Your task to perform on an android device: change notifications settings Image 0: 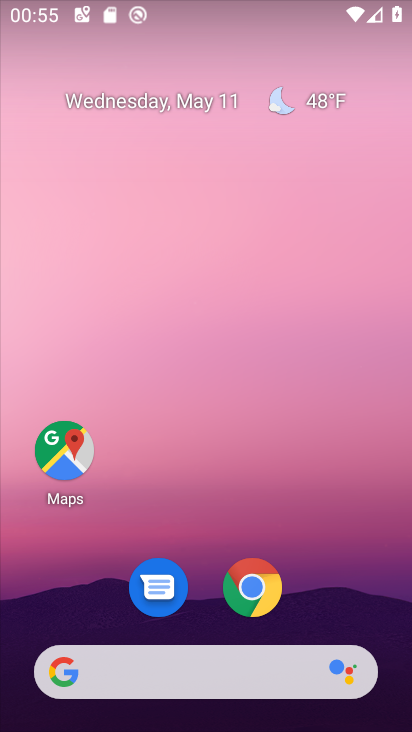
Step 0: drag from (357, 598) to (249, 193)
Your task to perform on an android device: change notifications settings Image 1: 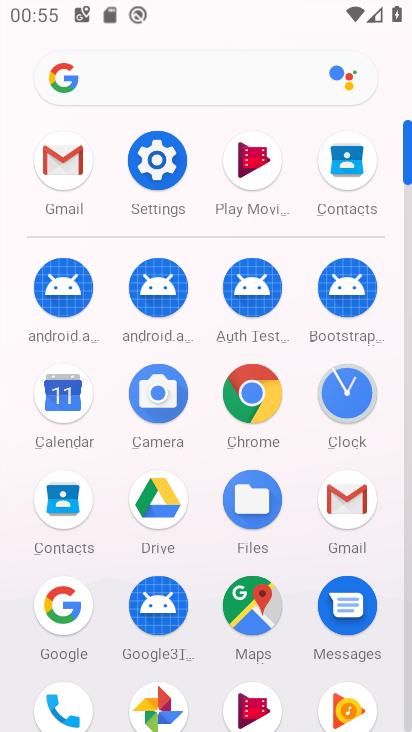
Step 1: click (159, 170)
Your task to perform on an android device: change notifications settings Image 2: 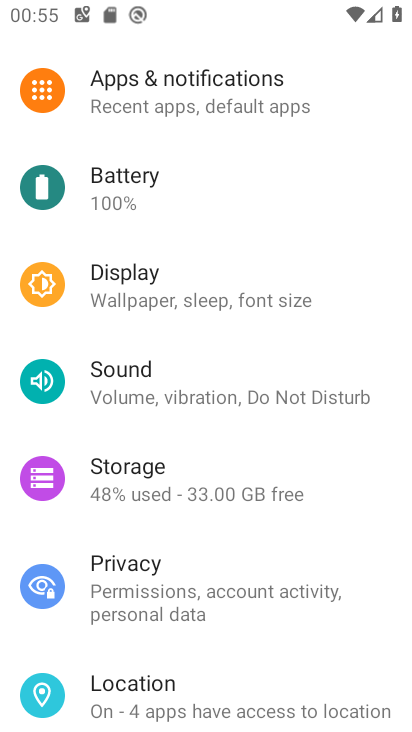
Step 2: click (107, 102)
Your task to perform on an android device: change notifications settings Image 3: 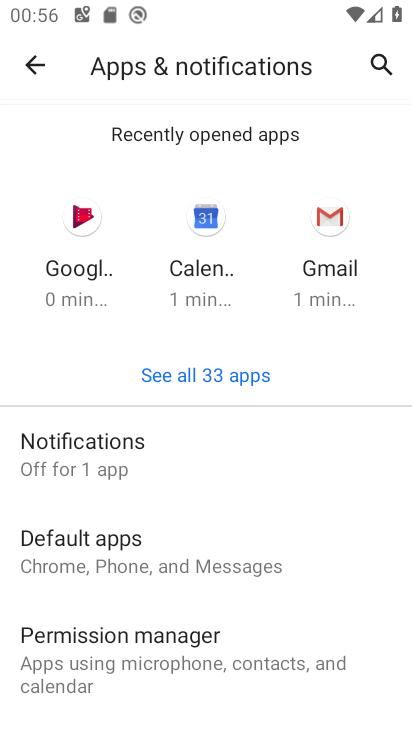
Step 3: click (79, 440)
Your task to perform on an android device: change notifications settings Image 4: 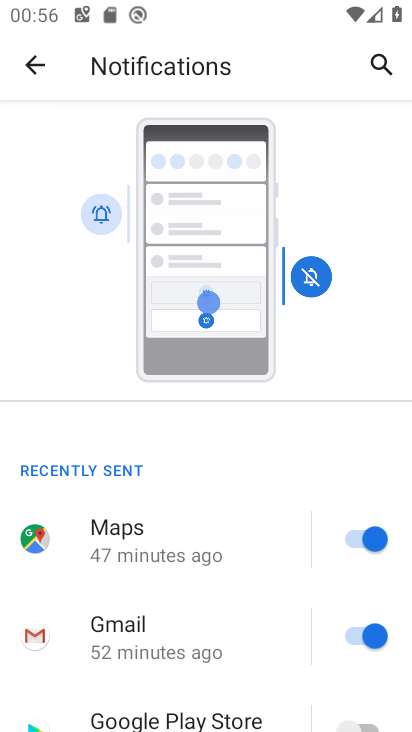
Step 4: drag from (228, 664) to (92, 363)
Your task to perform on an android device: change notifications settings Image 5: 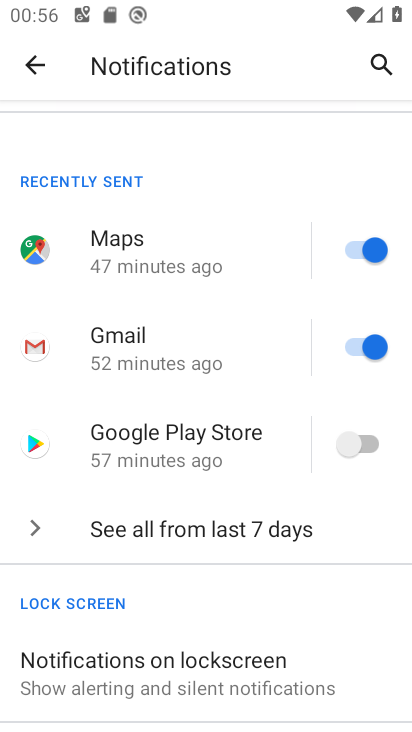
Step 5: drag from (181, 612) to (126, 345)
Your task to perform on an android device: change notifications settings Image 6: 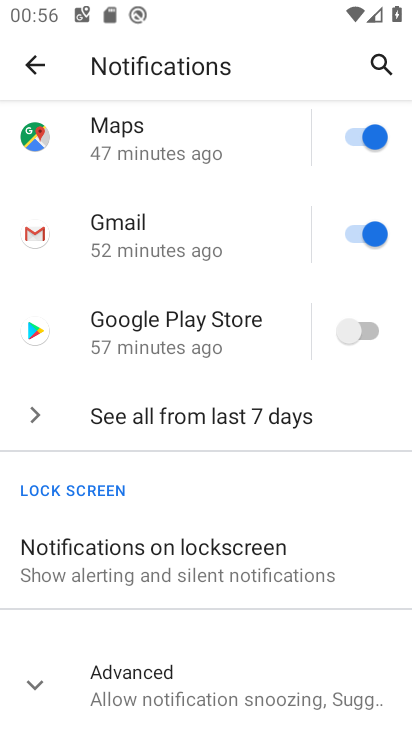
Step 6: click (241, 667)
Your task to perform on an android device: change notifications settings Image 7: 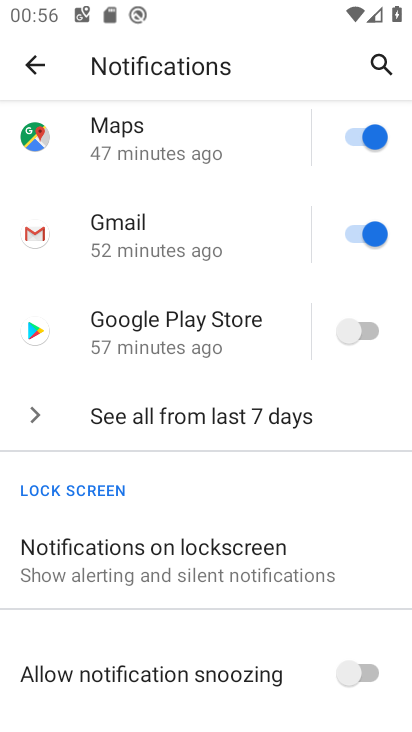
Step 7: drag from (293, 653) to (179, 300)
Your task to perform on an android device: change notifications settings Image 8: 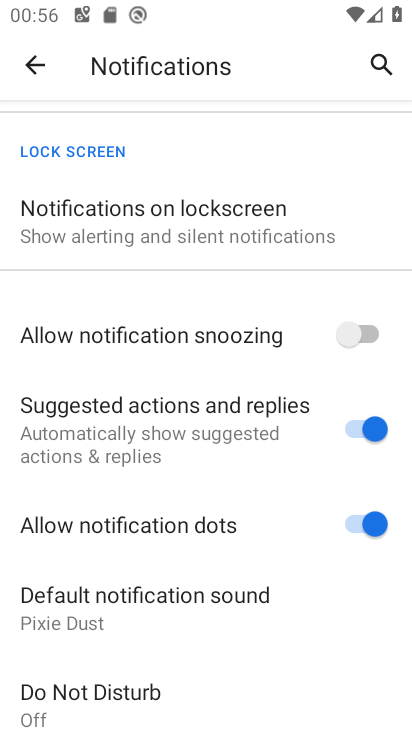
Step 8: click (362, 520)
Your task to perform on an android device: change notifications settings Image 9: 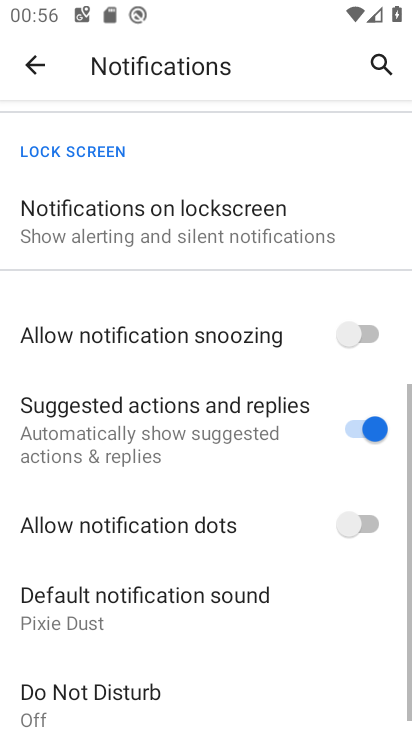
Step 9: task complete